Your task to perform on an android device: Is it going to rain today? Image 0: 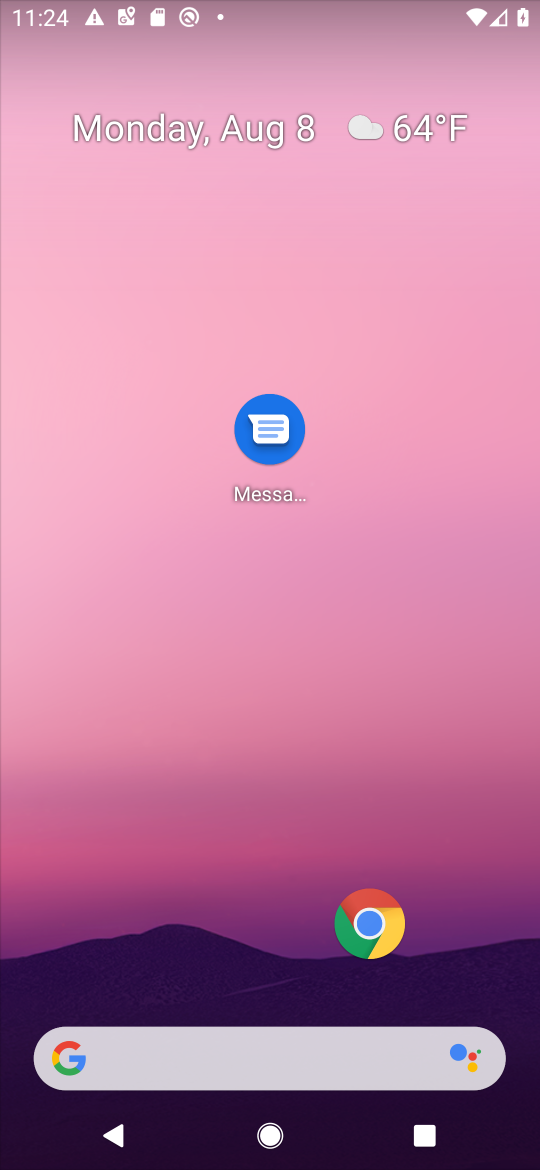
Step 0: click (145, 1077)
Your task to perform on an android device: Is it going to rain today? Image 1: 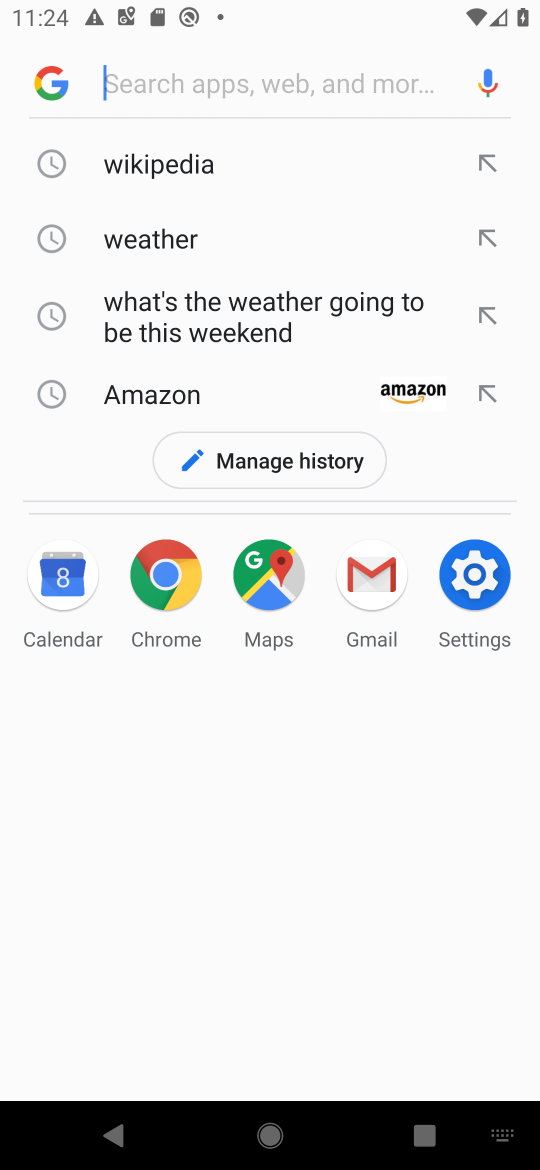
Step 1: type "Is it going to rain today?"
Your task to perform on an android device: Is it going to rain today? Image 2: 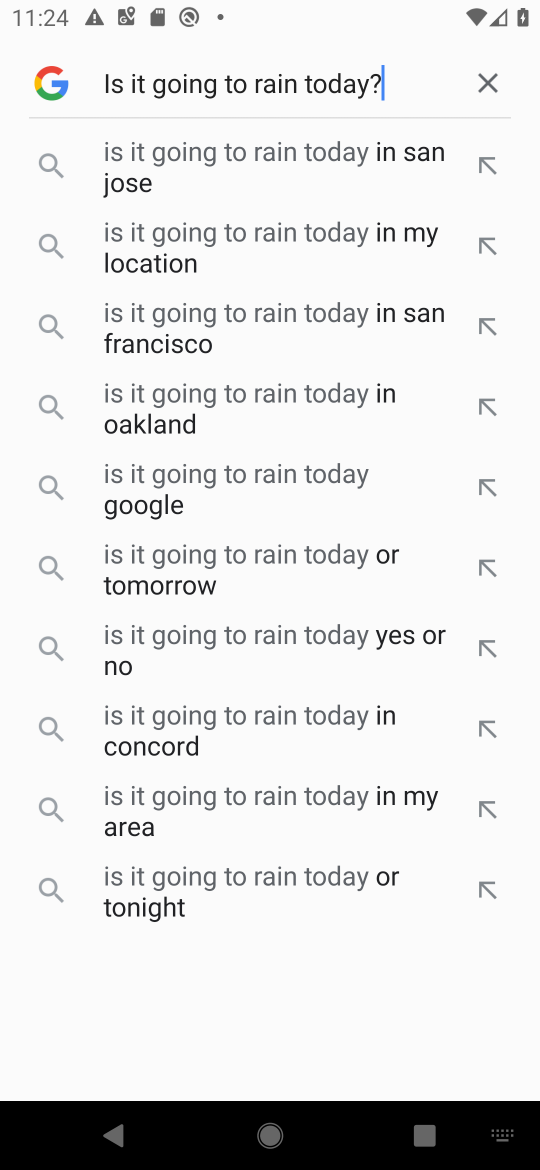
Step 2: type ""
Your task to perform on an android device: Is it going to rain today? Image 3: 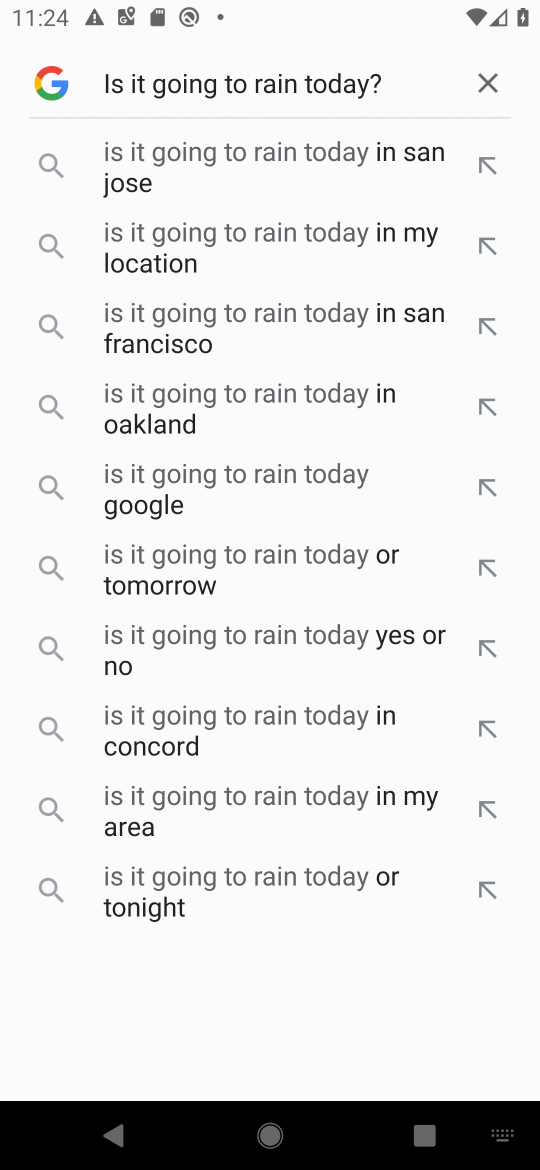
Step 3: type ""
Your task to perform on an android device: Is it going to rain today? Image 4: 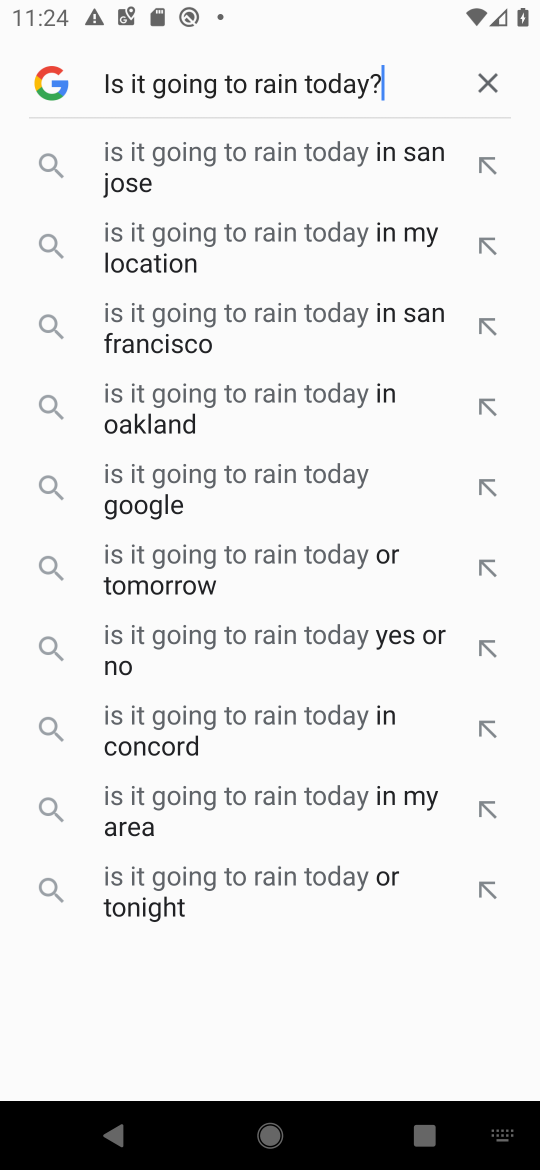
Step 4: task complete